Your task to perform on an android device: Search for good Chinese restaurants Image 0: 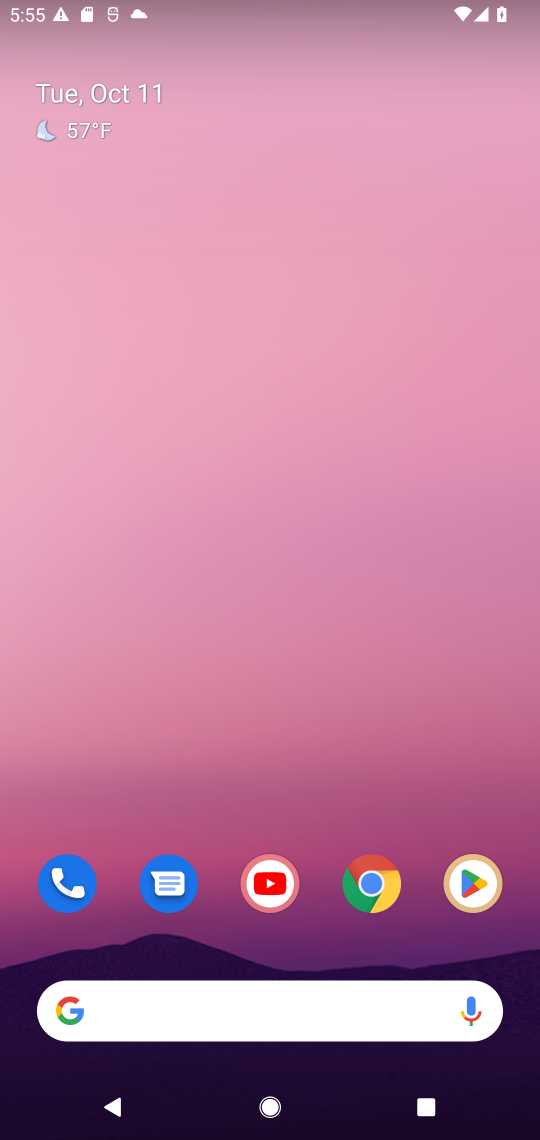
Step 0: drag from (334, 249) to (333, 184)
Your task to perform on an android device: Search for good Chinese restaurants Image 1: 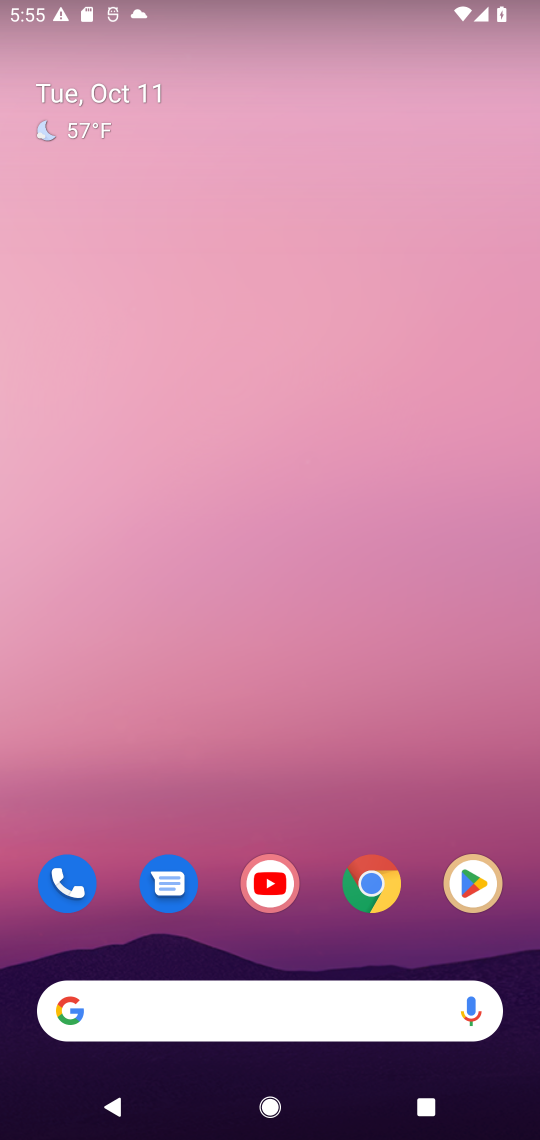
Step 1: drag from (333, 955) to (289, 243)
Your task to perform on an android device: Search for good Chinese restaurants Image 2: 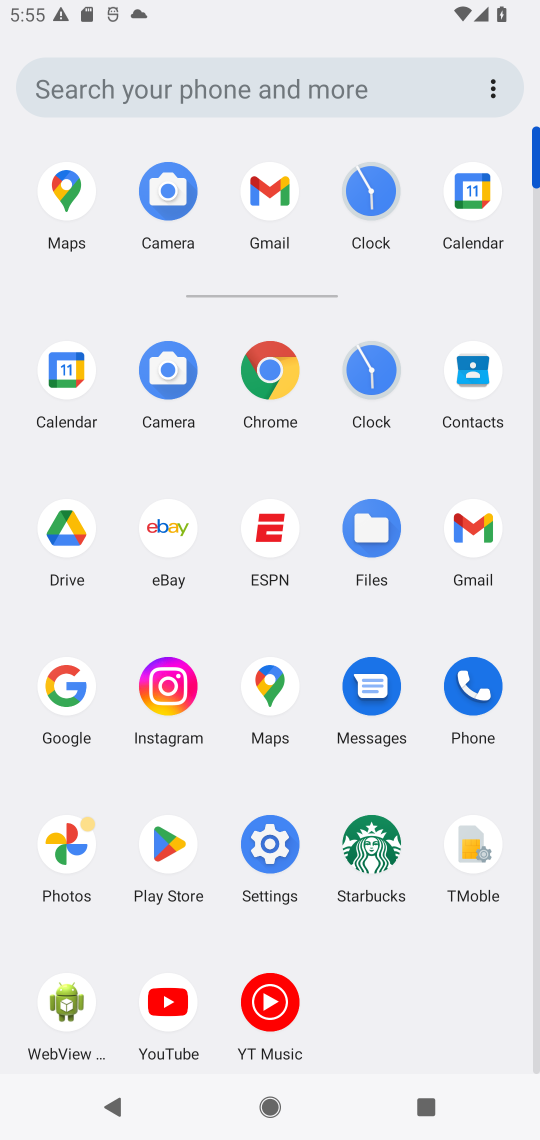
Step 2: click (272, 382)
Your task to perform on an android device: Search for good Chinese restaurants Image 3: 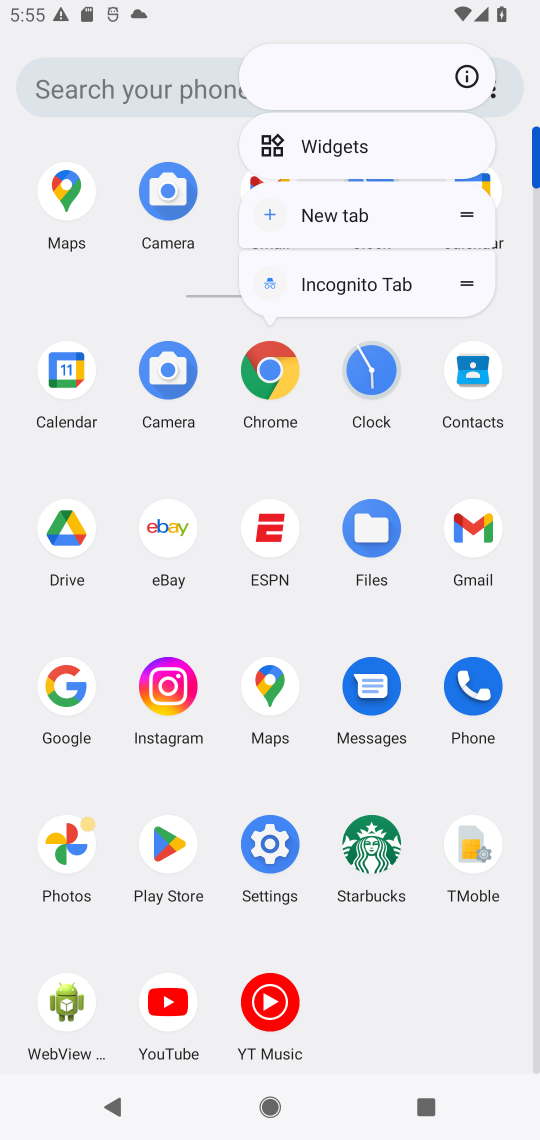
Step 3: click (272, 374)
Your task to perform on an android device: Search for good Chinese restaurants Image 4: 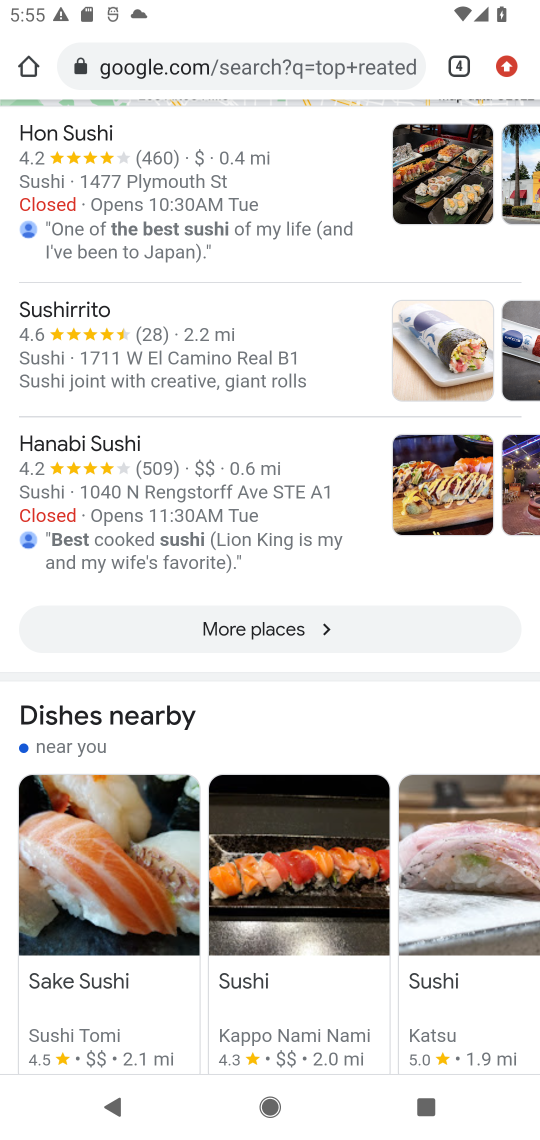
Step 4: click (347, 55)
Your task to perform on an android device: Search for good Chinese restaurants Image 5: 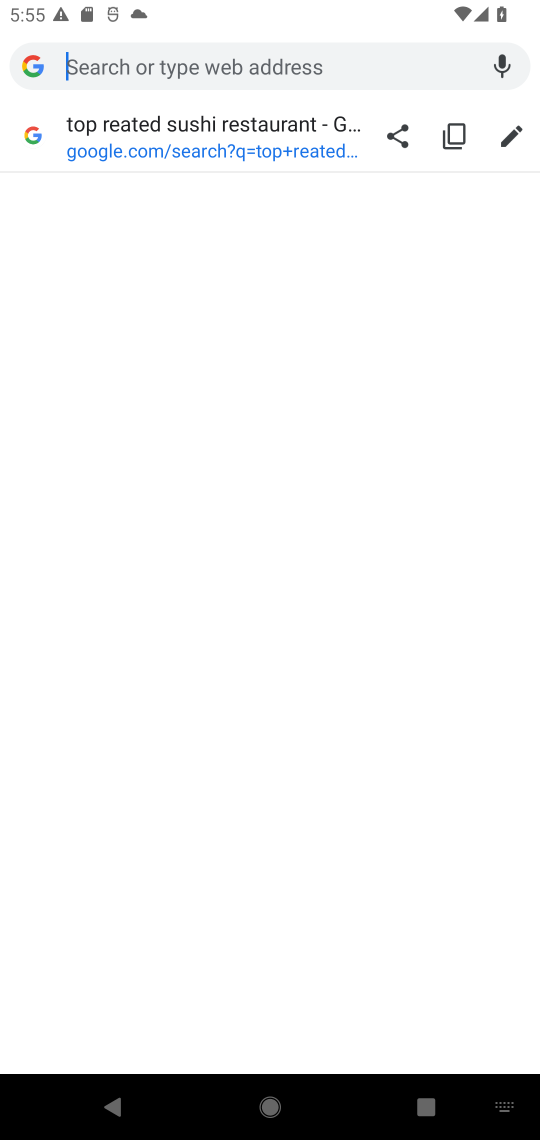
Step 5: type "good Chinese restaurants"
Your task to perform on an android device: Search for good Chinese restaurants Image 6: 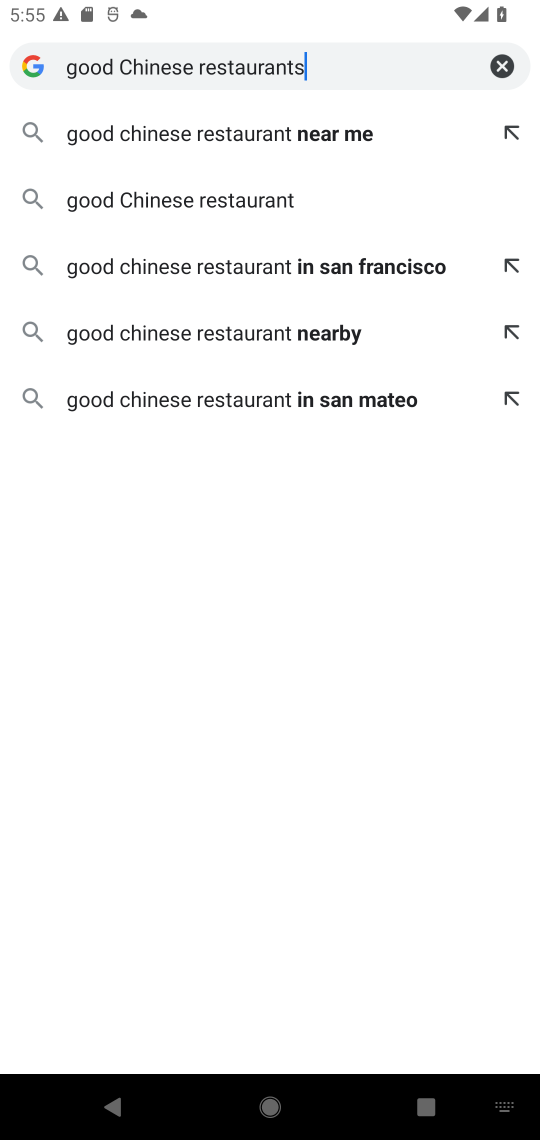
Step 6: press enter
Your task to perform on an android device: Search for good Chinese restaurants Image 7: 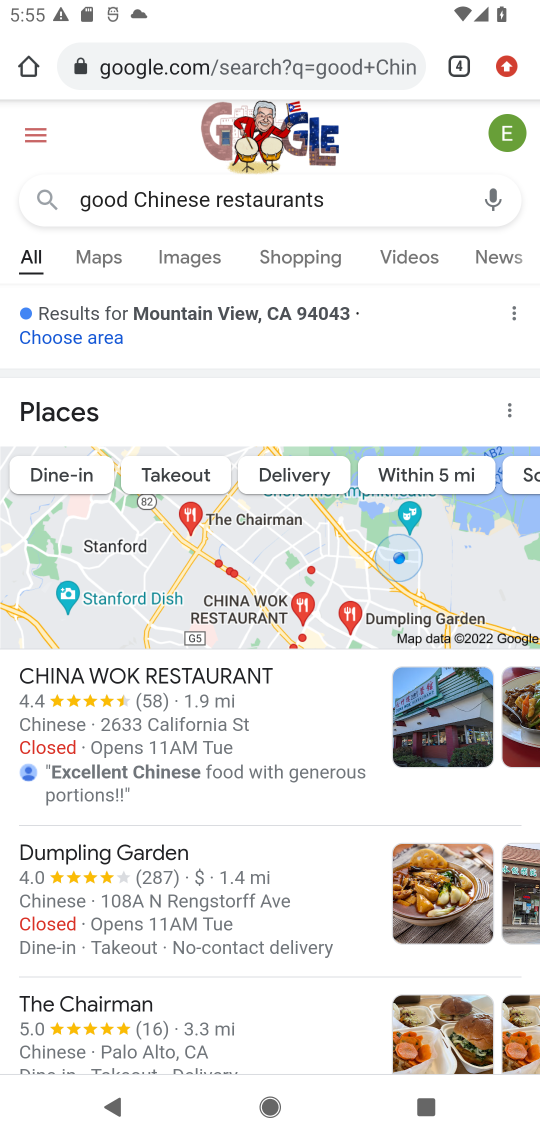
Step 7: task complete